Your task to perform on an android device: Search for rayovac triple a on walmart, select the first entry, add it to the cart, then select checkout. Image 0: 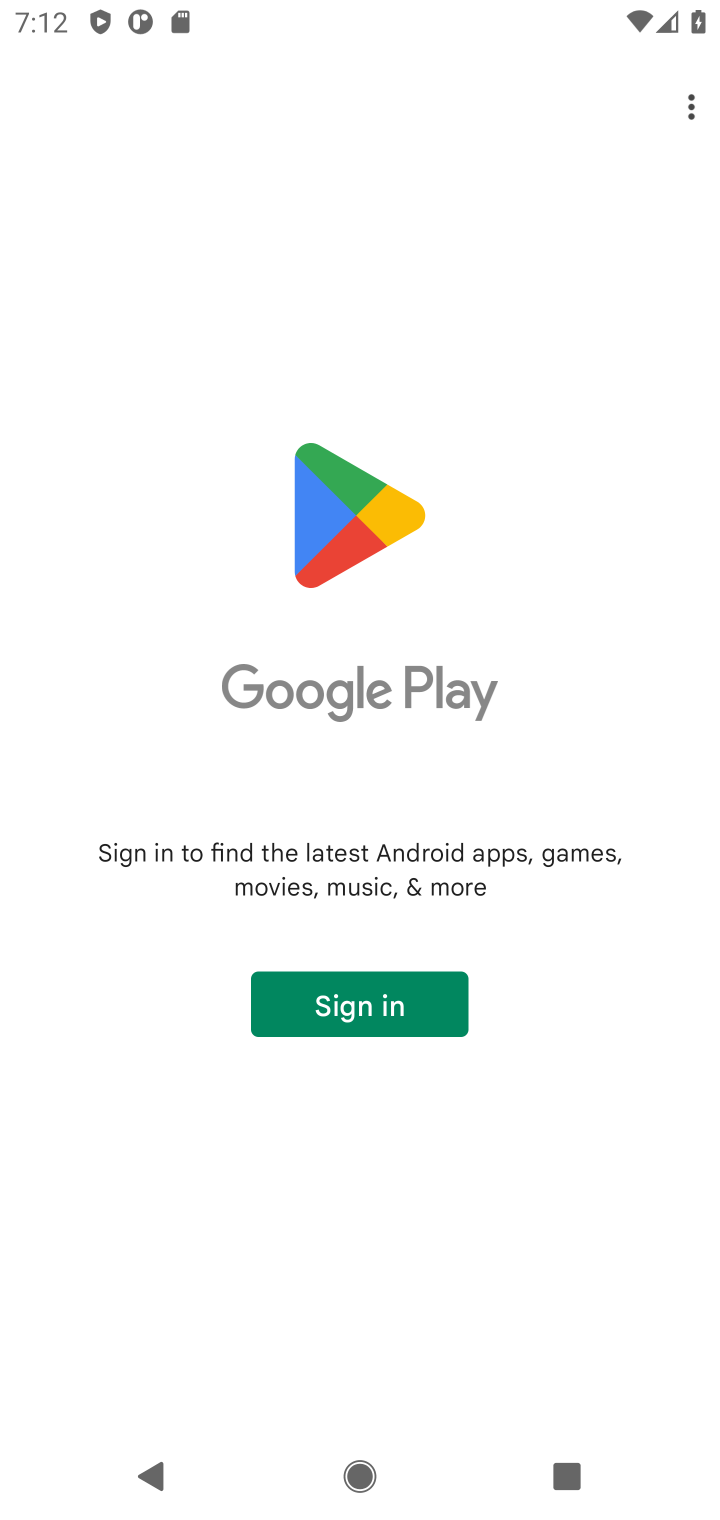
Step 0: press home button
Your task to perform on an android device: Search for rayovac triple a on walmart, select the first entry, add it to the cart, then select checkout. Image 1: 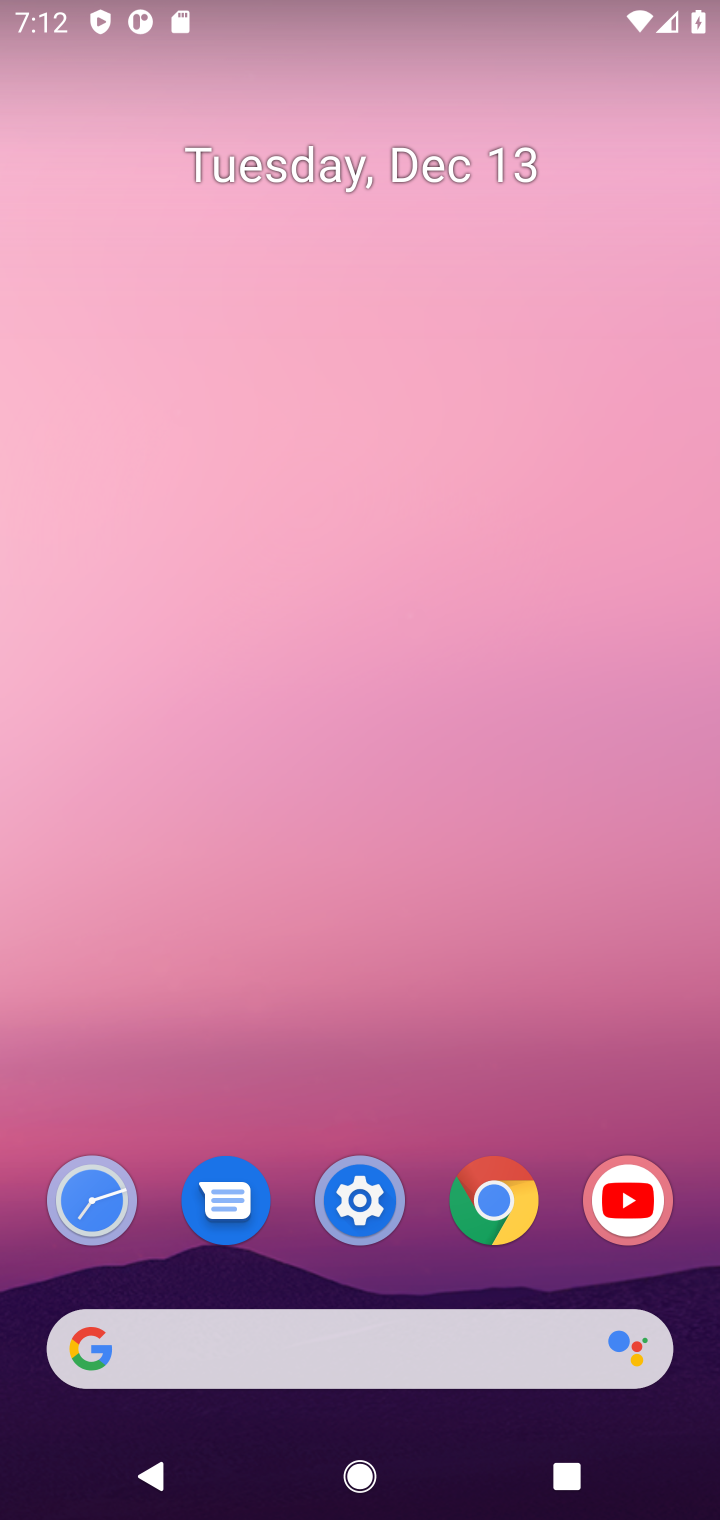
Step 1: click (353, 1341)
Your task to perform on an android device: Search for rayovac triple a on walmart, select the first entry, add it to the cart, then select checkout. Image 2: 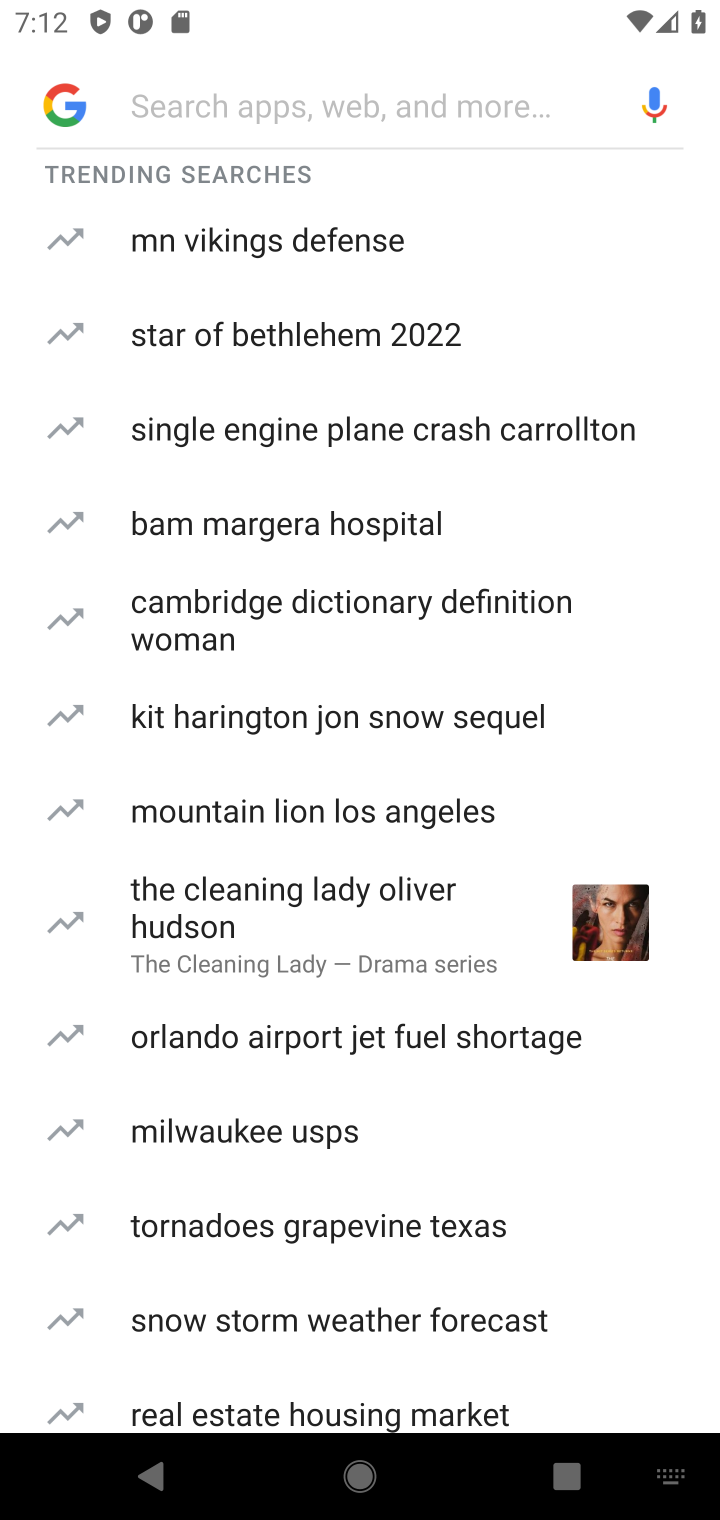
Step 2: type "walmart"
Your task to perform on an android device: Search for rayovac triple a on walmart, select the first entry, add it to the cart, then select checkout. Image 3: 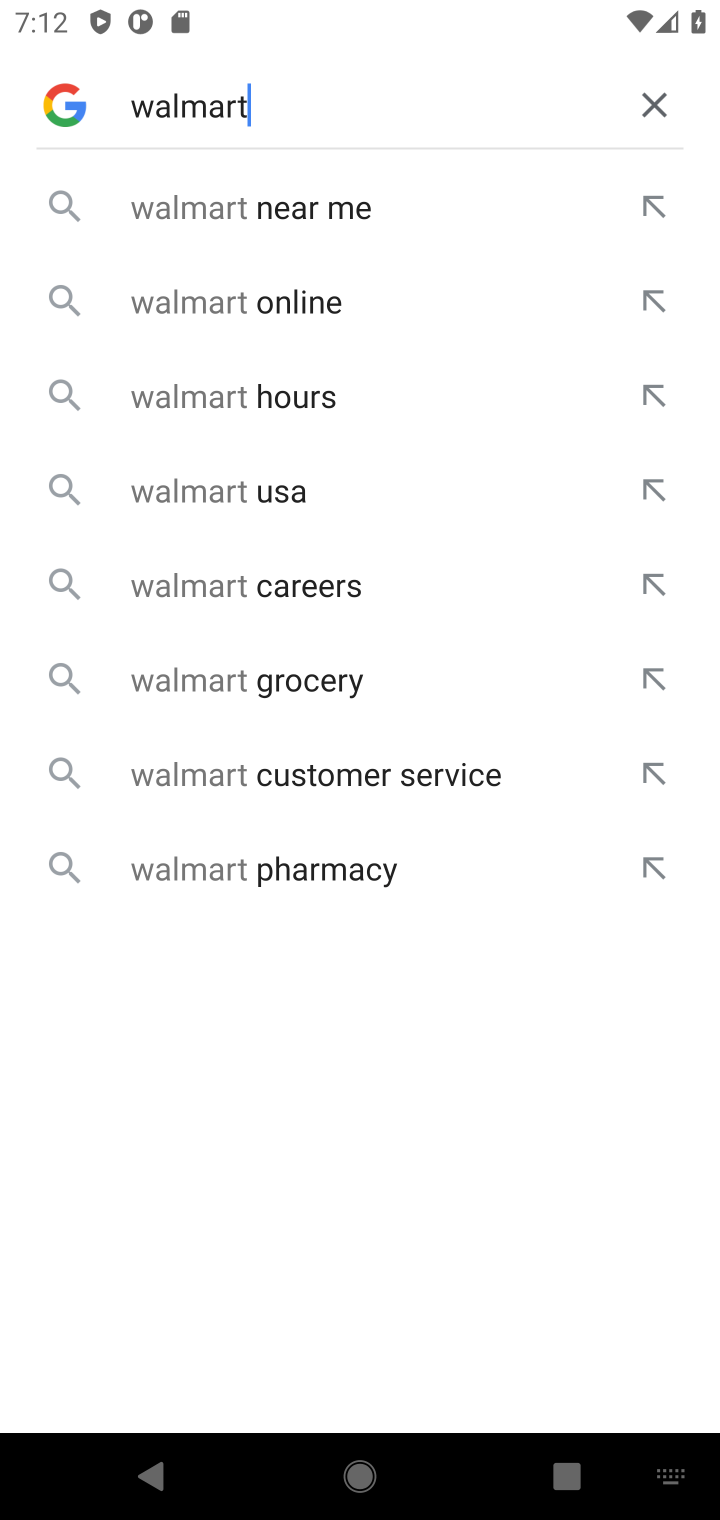
Step 3: click (261, 494)
Your task to perform on an android device: Search for rayovac triple a on walmart, select the first entry, add it to the cart, then select checkout. Image 4: 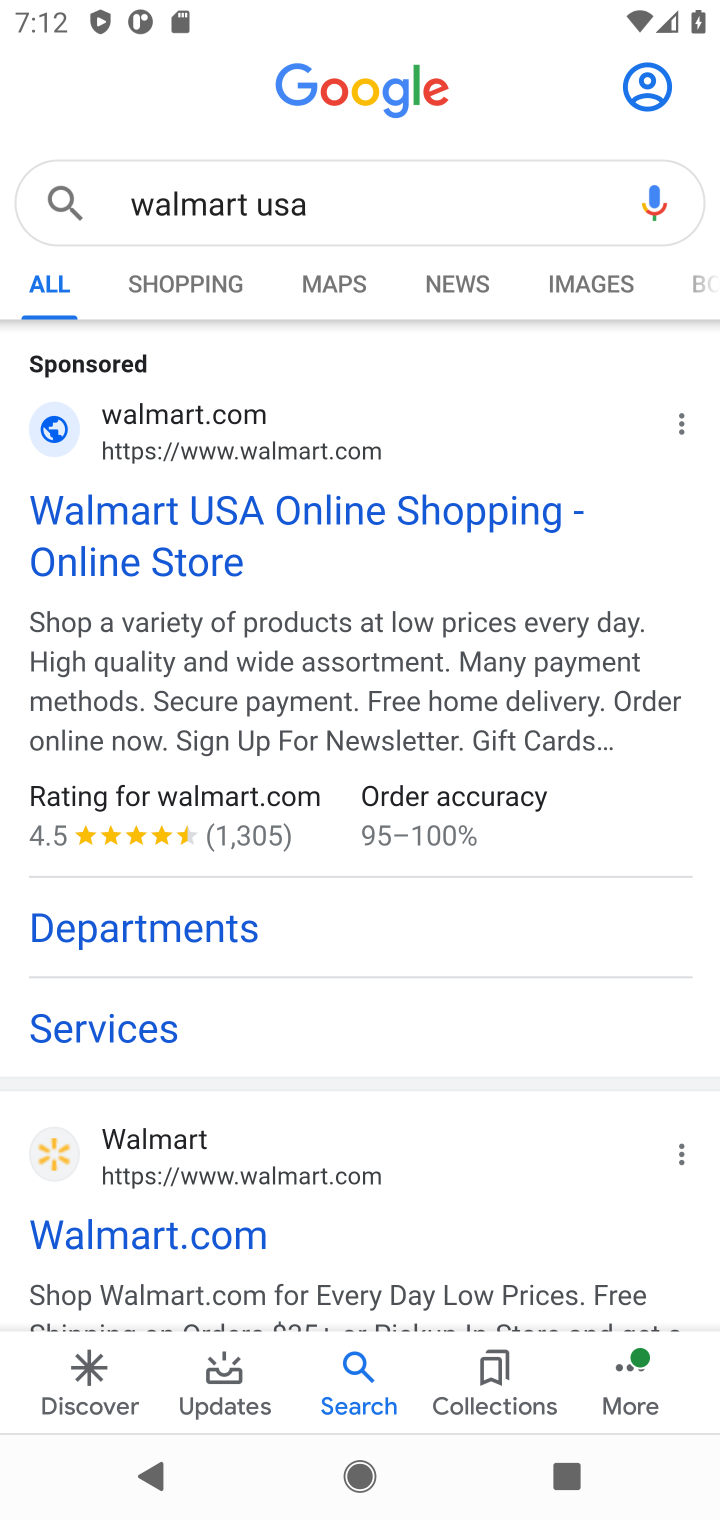
Step 4: click (159, 1246)
Your task to perform on an android device: Search for rayovac triple a on walmart, select the first entry, add it to the cart, then select checkout. Image 5: 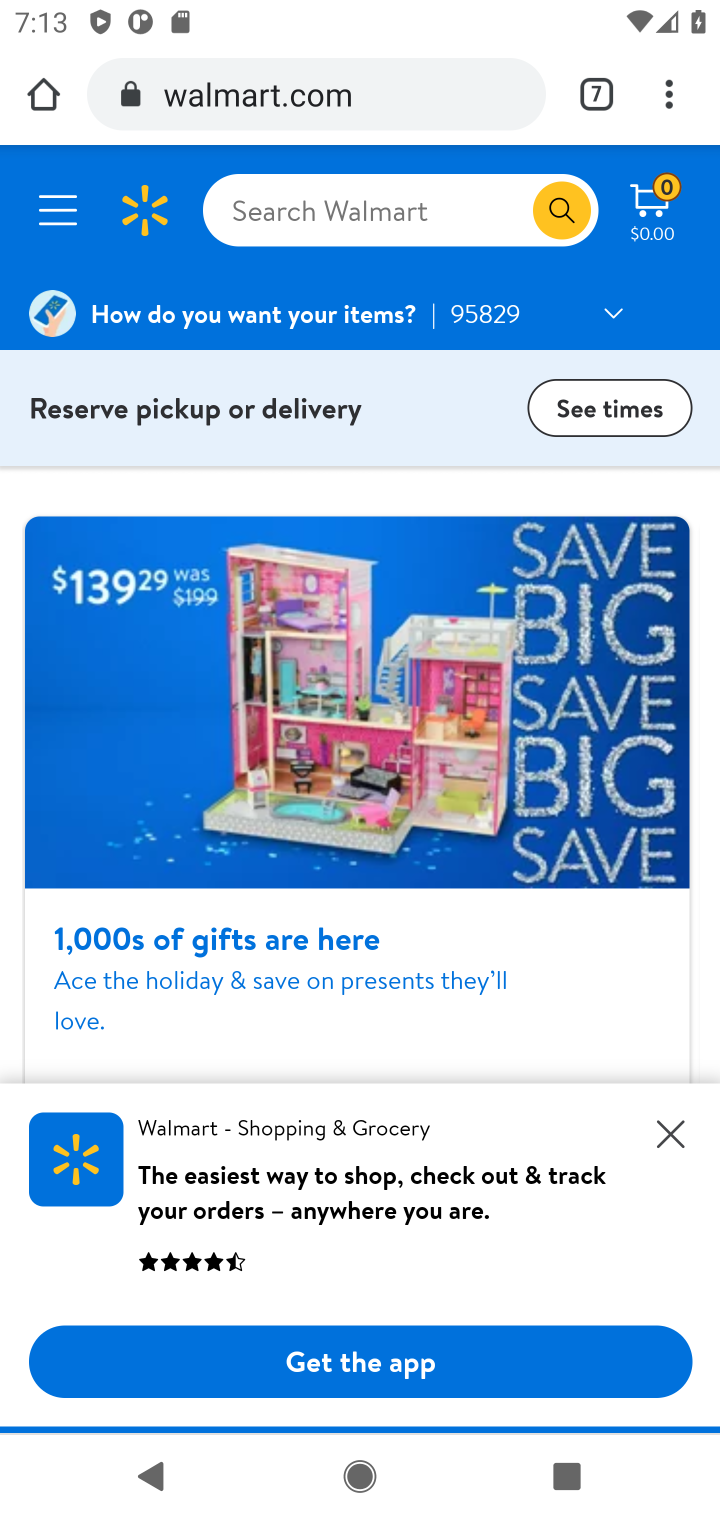
Step 5: click (670, 1138)
Your task to perform on an android device: Search for rayovac triple a on walmart, select the first entry, add it to the cart, then select checkout. Image 6: 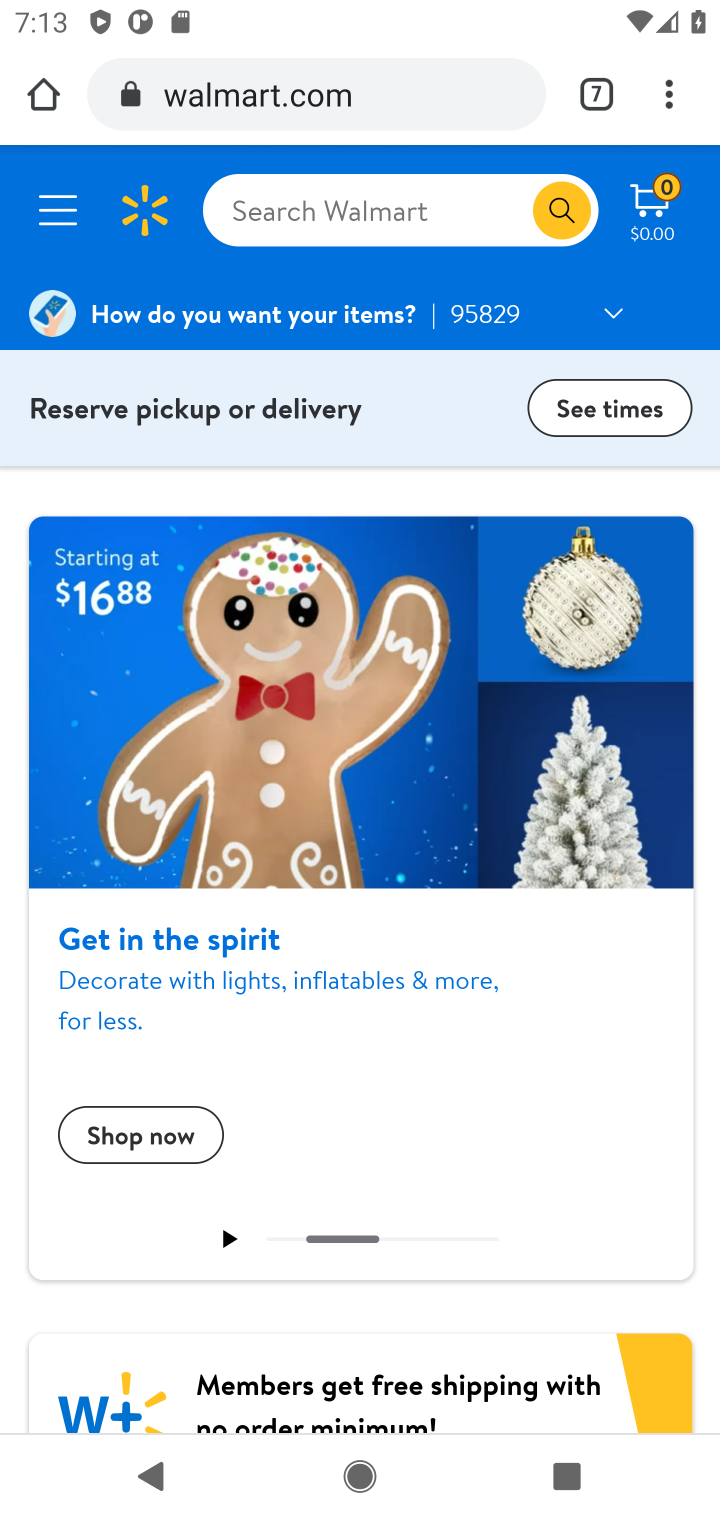
Step 6: click (418, 204)
Your task to perform on an android device: Search for rayovac triple a on walmart, select the first entry, add it to the cart, then select checkout. Image 7: 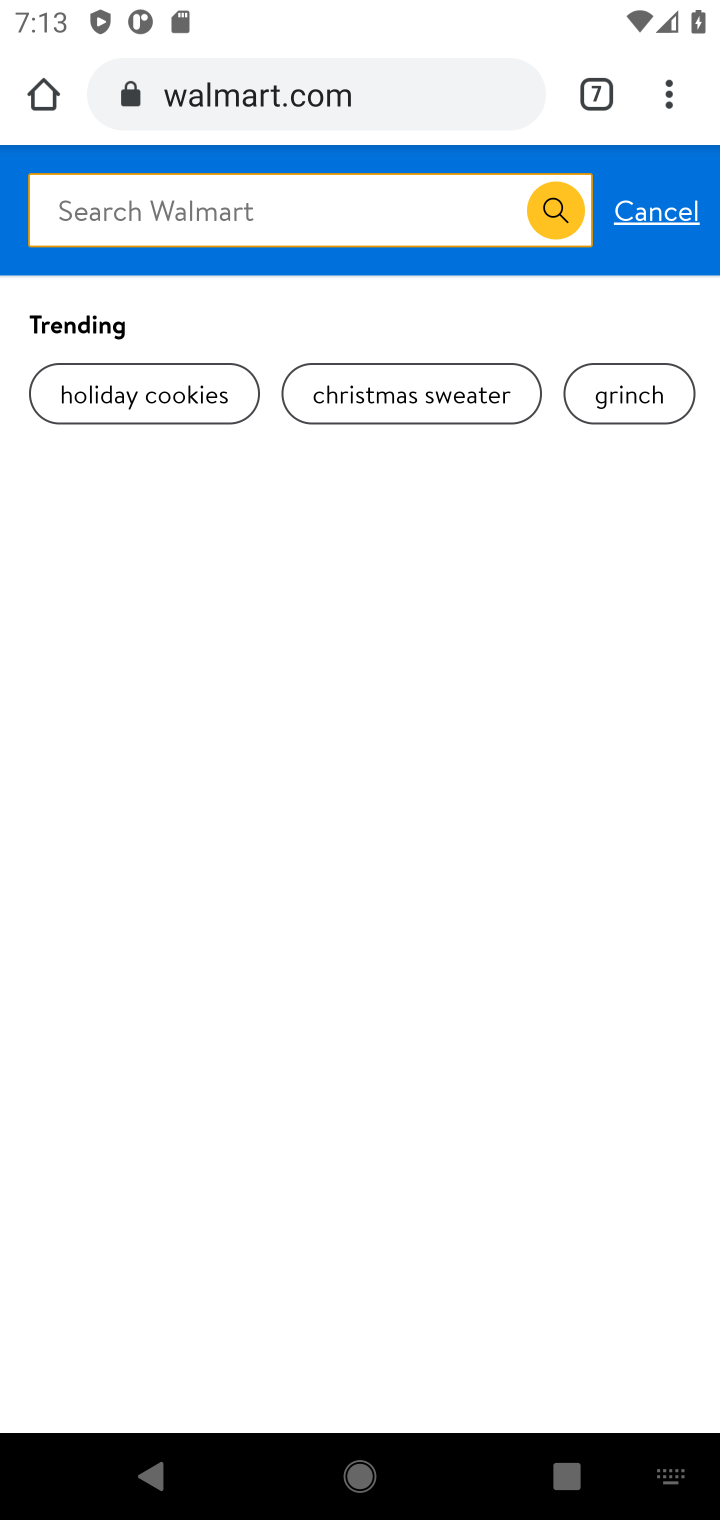
Step 7: type "rayovac triple a"
Your task to perform on an android device: Search for rayovac triple a on walmart, select the first entry, add it to the cart, then select checkout. Image 8: 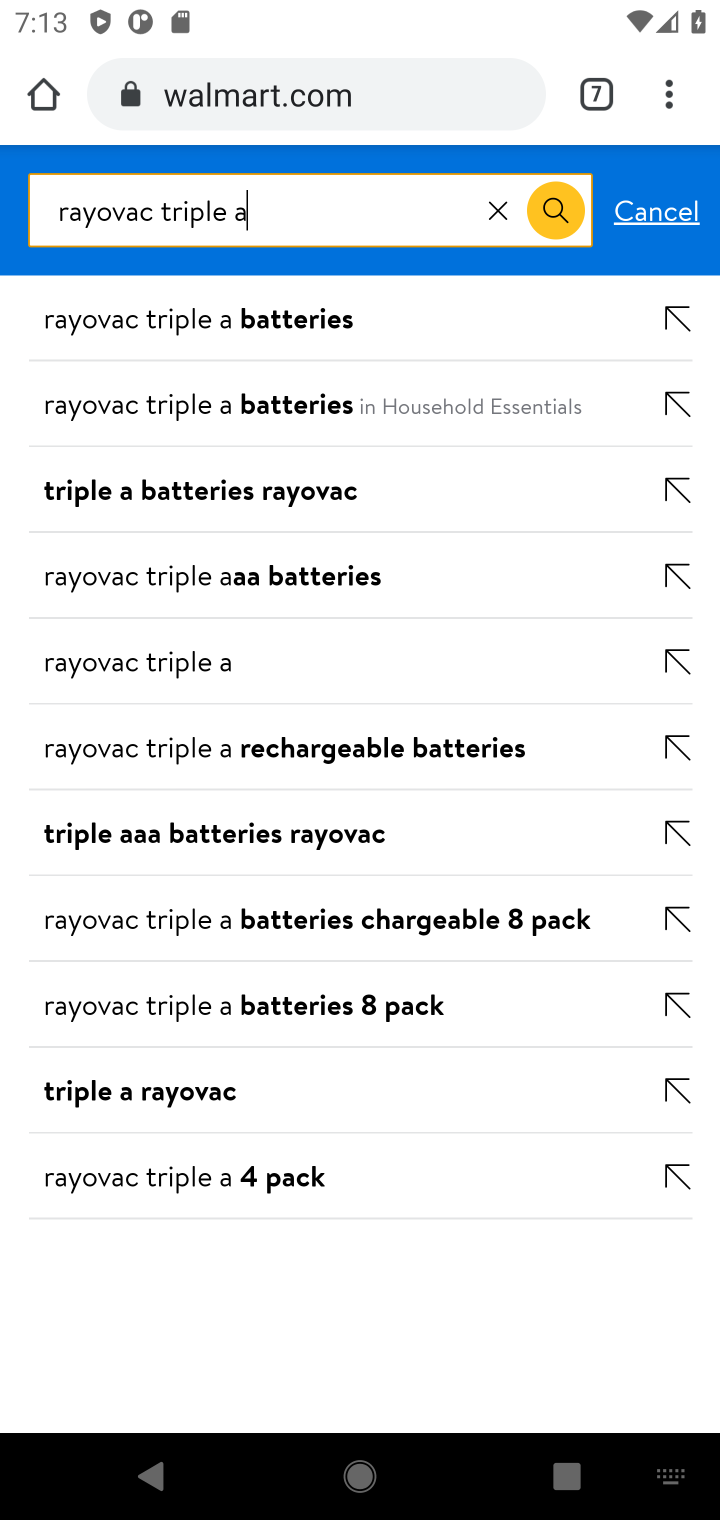
Step 8: click (245, 316)
Your task to perform on an android device: Search for rayovac triple a on walmart, select the first entry, add it to the cart, then select checkout. Image 9: 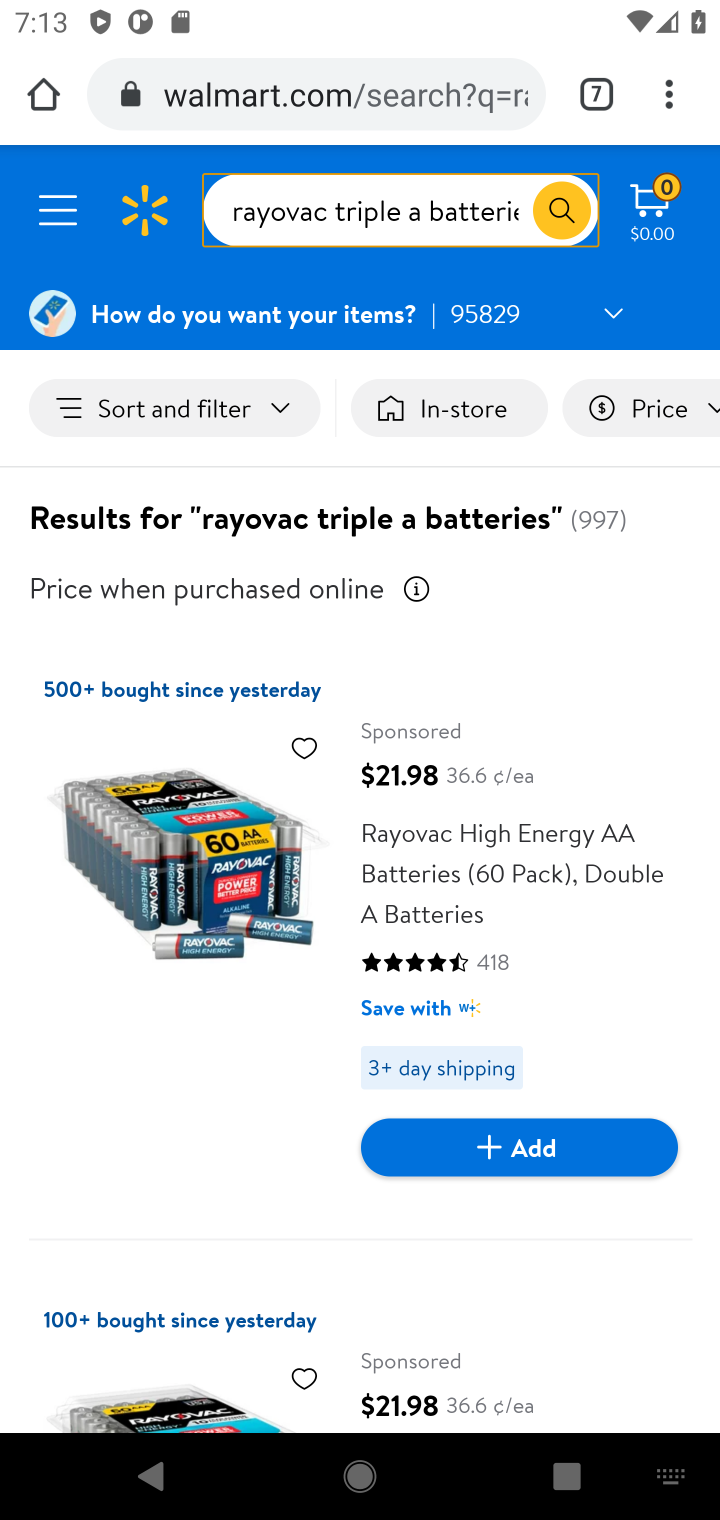
Step 9: click (517, 1151)
Your task to perform on an android device: Search for rayovac triple a on walmart, select the first entry, add it to the cart, then select checkout. Image 10: 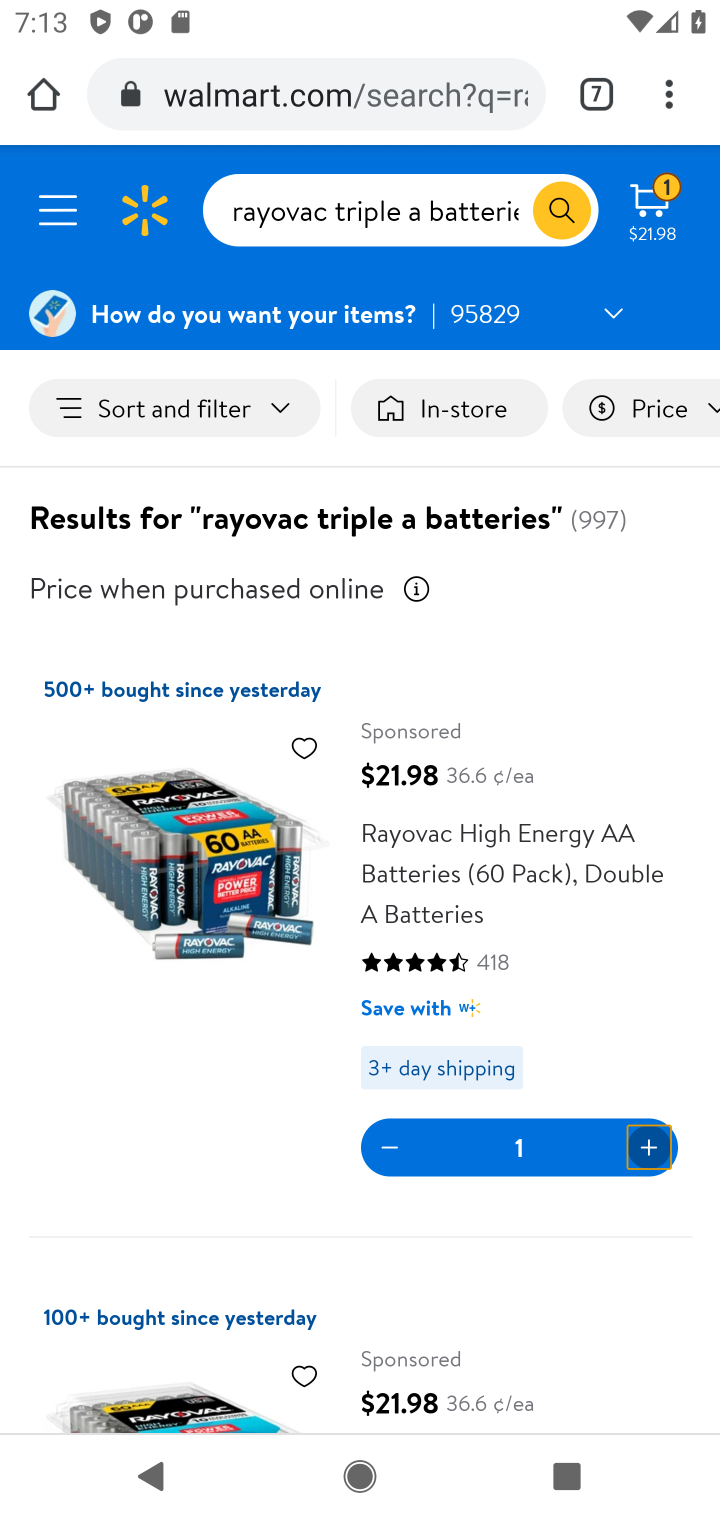
Step 10: click (654, 213)
Your task to perform on an android device: Search for rayovac triple a on walmart, select the first entry, add it to the cart, then select checkout. Image 11: 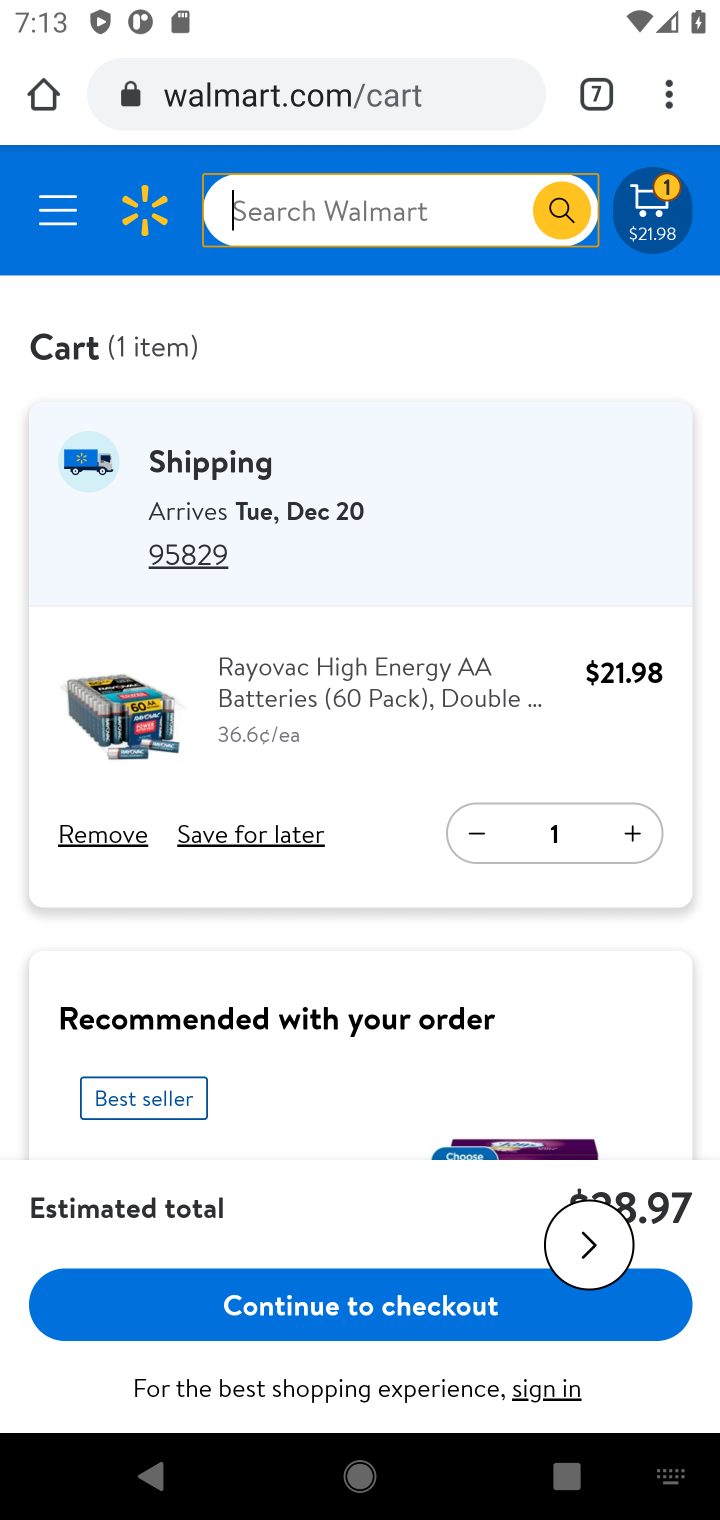
Step 11: click (356, 1292)
Your task to perform on an android device: Search for rayovac triple a on walmart, select the first entry, add it to the cart, then select checkout. Image 12: 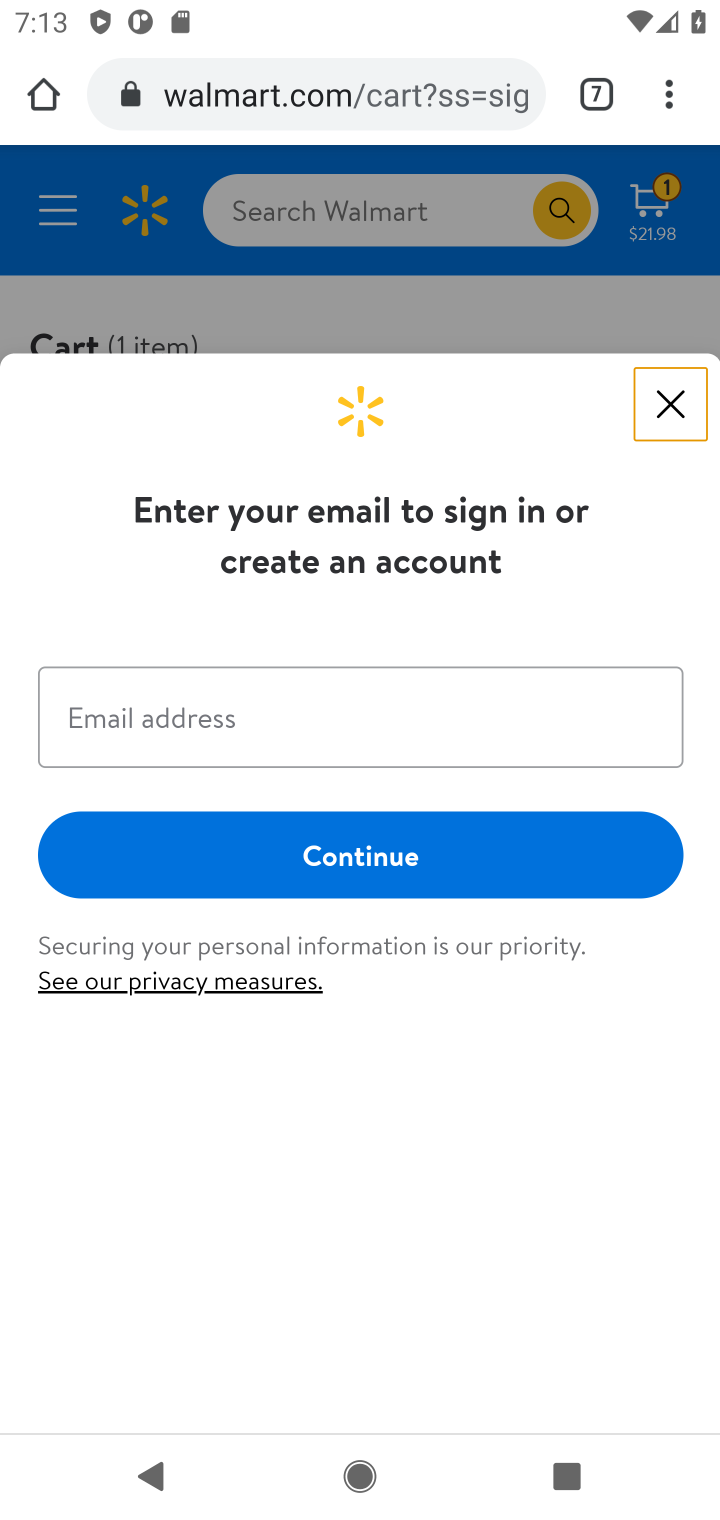
Step 12: task complete